Your task to perform on an android device: visit the assistant section in the google photos Image 0: 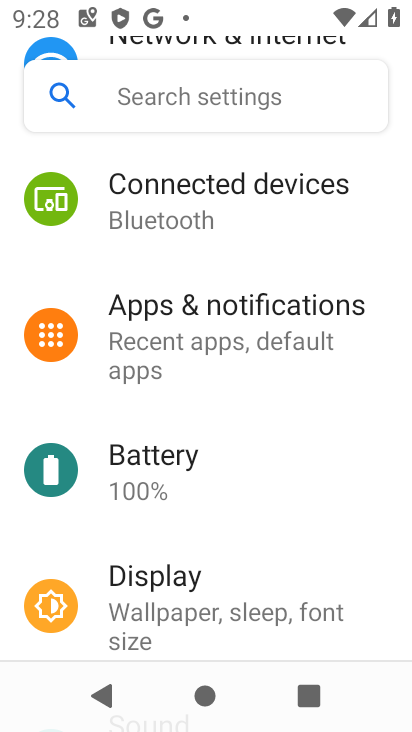
Step 0: press home button
Your task to perform on an android device: visit the assistant section in the google photos Image 1: 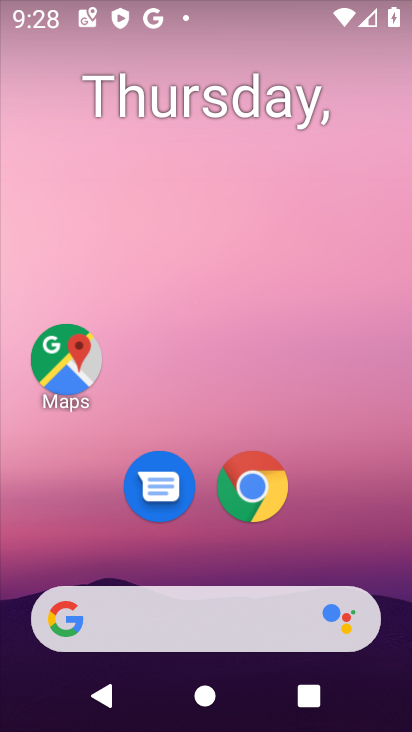
Step 1: drag from (217, 542) to (274, 0)
Your task to perform on an android device: visit the assistant section in the google photos Image 2: 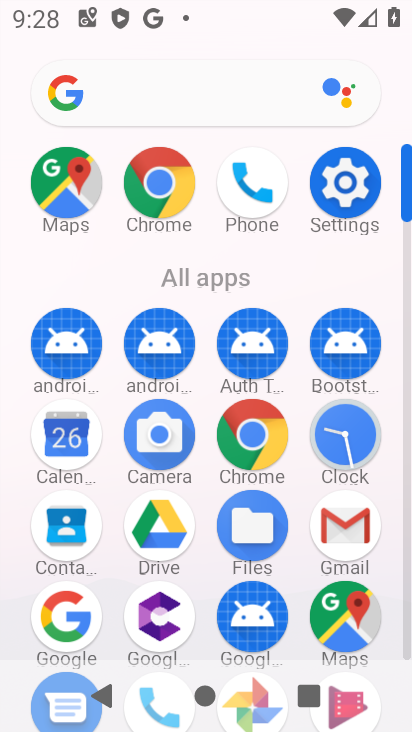
Step 2: drag from (302, 560) to (289, 130)
Your task to perform on an android device: visit the assistant section in the google photos Image 3: 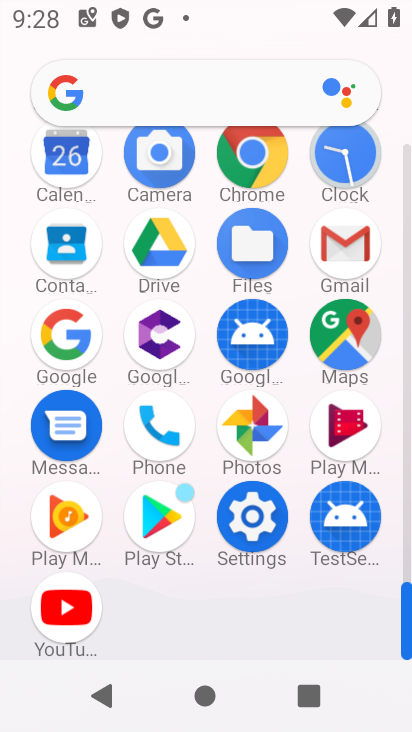
Step 3: click (246, 424)
Your task to perform on an android device: visit the assistant section in the google photos Image 4: 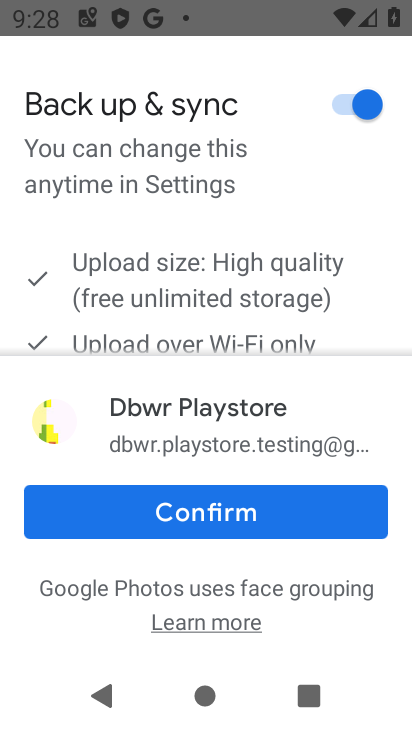
Step 4: click (194, 517)
Your task to perform on an android device: visit the assistant section in the google photos Image 5: 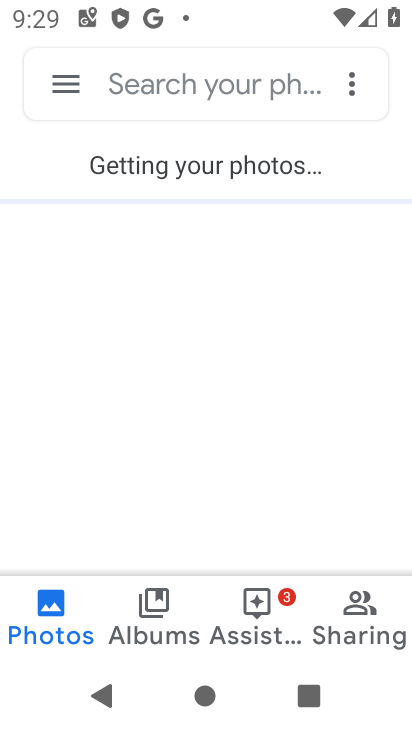
Step 5: click (261, 604)
Your task to perform on an android device: visit the assistant section in the google photos Image 6: 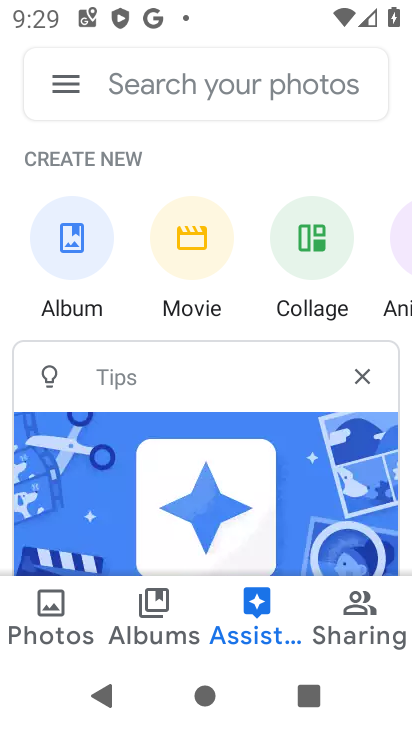
Step 6: task complete